Your task to perform on an android device: change the clock display to analog Image 0: 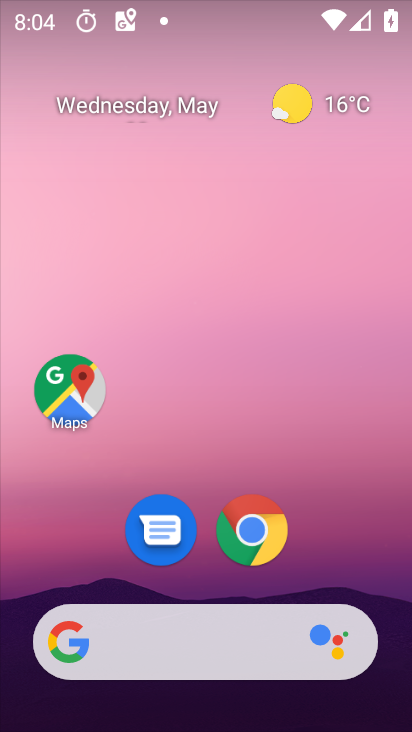
Step 0: drag from (195, 487) to (249, 103)
Your task to perform on an android device: change the clock display to analog Image 1: 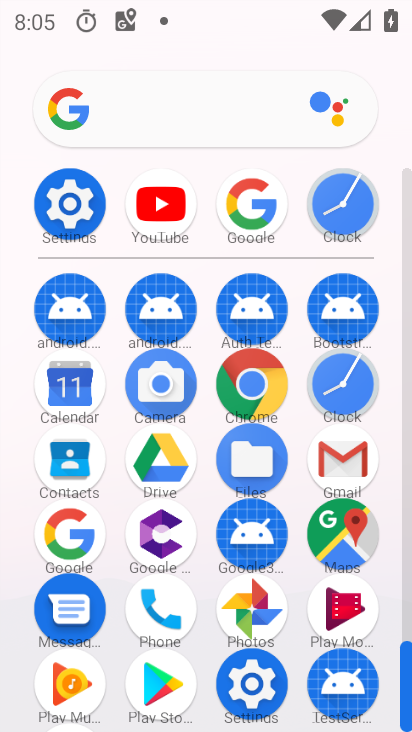
Step 1: click (351, 384)
Your task to perform on an android device: change the clock display to analog Image 2: 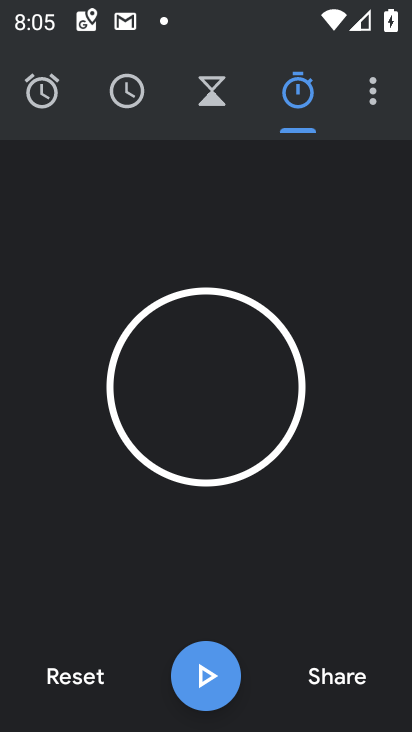
Step 2: click (371, 93)
Your task to perform on an android device: change the clock display to analog Image 3: 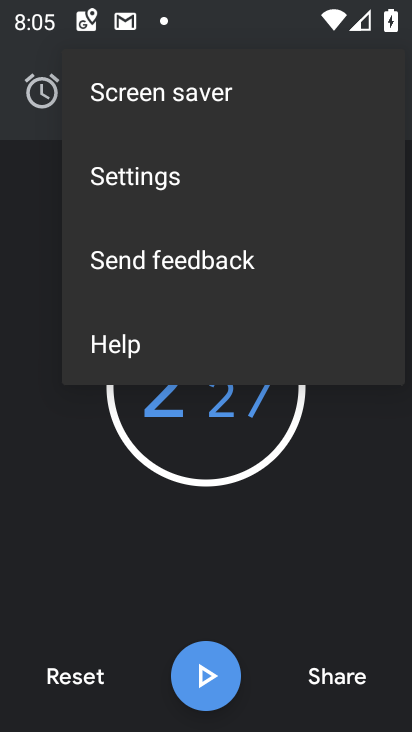
Step 3: click (158, 179)
Your task to perform on an android device: change the clock display to analog Image 4: 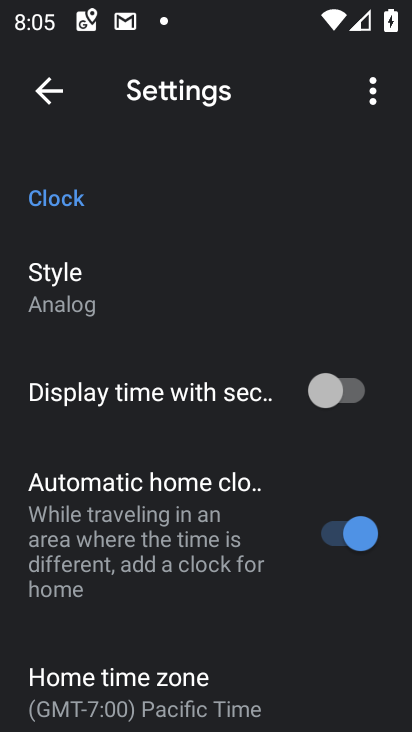
Step 4: click (133, 591)
Your task to perform on an android device: change the clock display to analog Image 5: 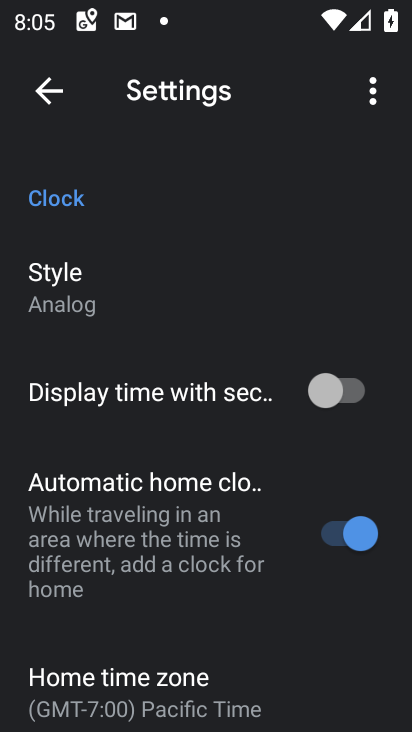
Step 5: task complete